Your task to perform on an android device: Go to notification settings Image 0: 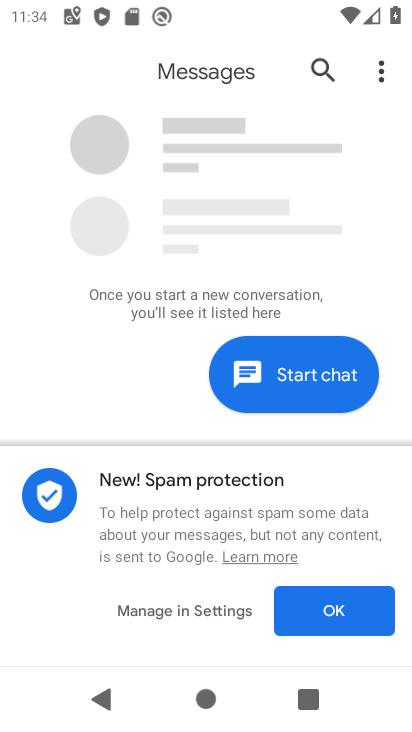
Step 0: click (333, 603)
Your task to perform on an android device: Go to notification settings Image 1: 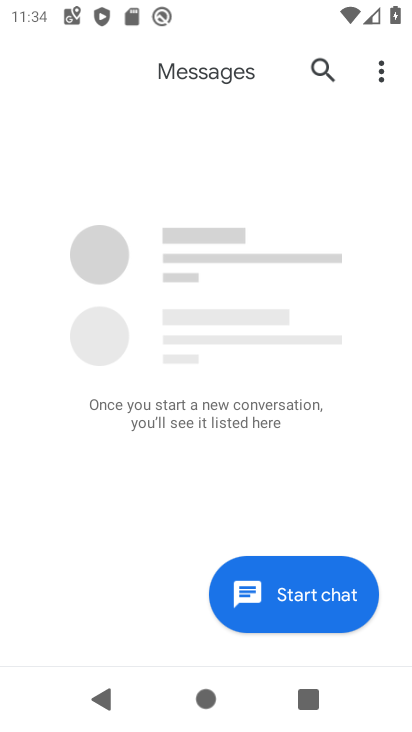
Step 1: press back button
Your task to perform on an android device: Go to notification settings Image 2: 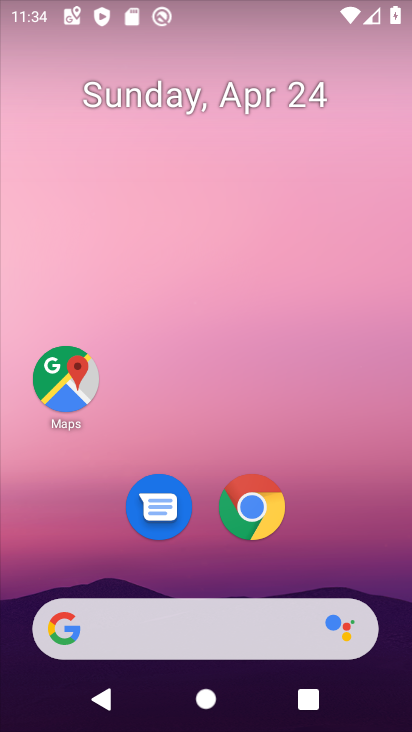
Step 2: drag from (396, 554) to (347, 37)
Your task to perform on an android device: Go to notification settings Image 3: 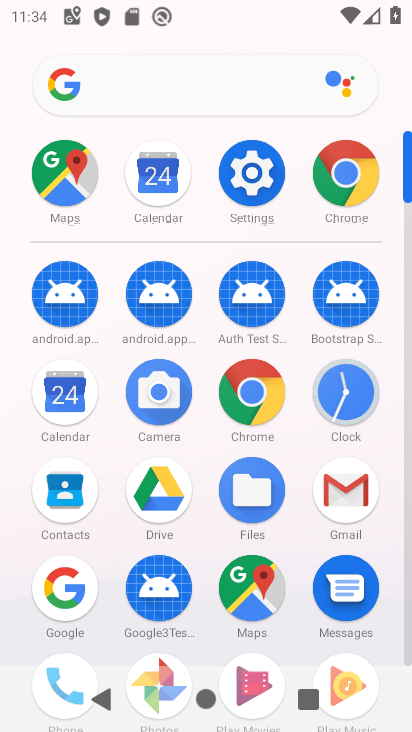
Step 3: drag from (16, 619) to (19, 330)
Your task to perform on an android device: Go to notification settings Image 4: 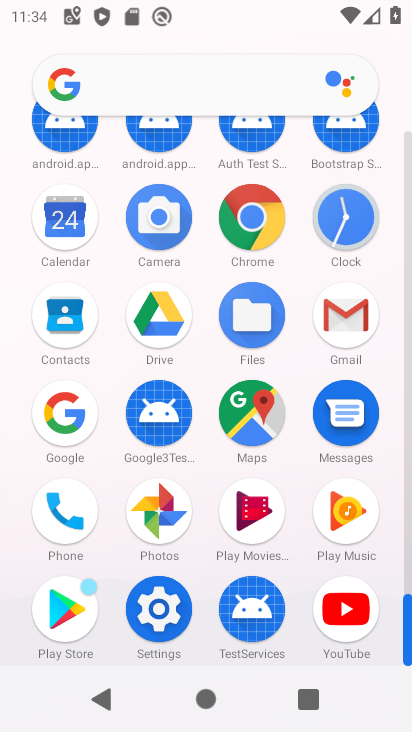
Step 4: drag from (15, 203) to (0, 466)
Your task to perform on an android device: Go to notification settings Image 5: 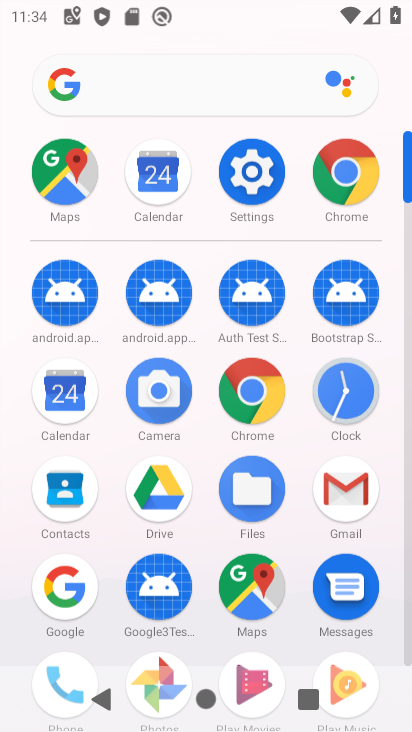
Step 5: drag from (5, 515) to (34, 229)
Your task to perform on an android device: Go to notification settings Image 6: 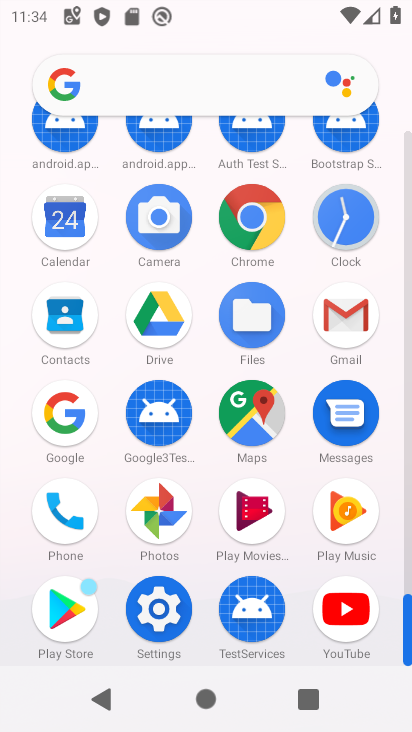
Step 6: click (160, 607)
Your task to perform on an android device: Go to notification settings Image 7: 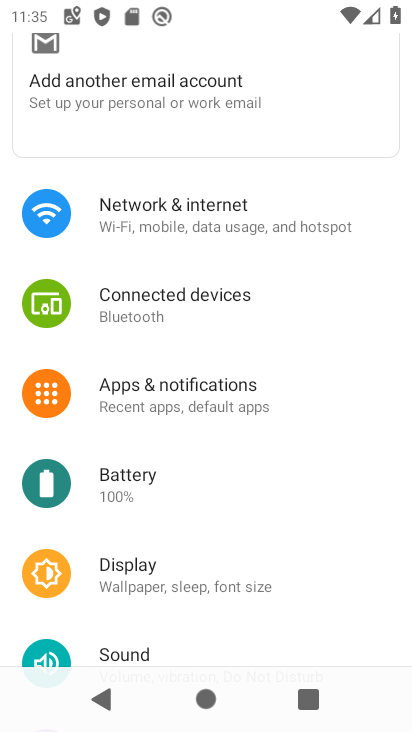
Step 7: click (241, 399)
Your task to perform on an android device: Go to notification settings Image 8: 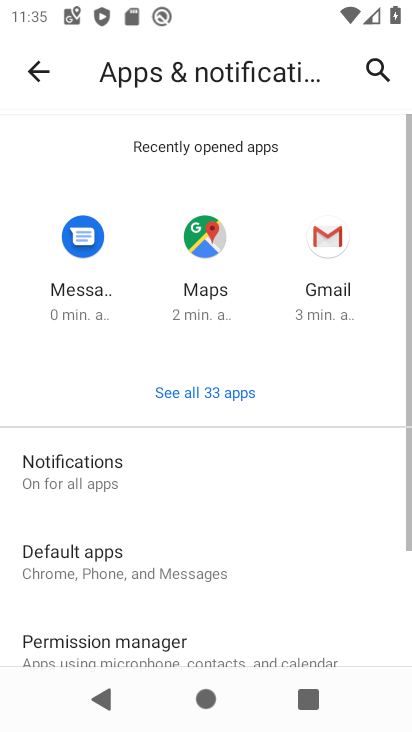
Step 8: drag from (240, 571) to (253, 175)
Your task to perform on an android device: Go to notification settings Image 9: 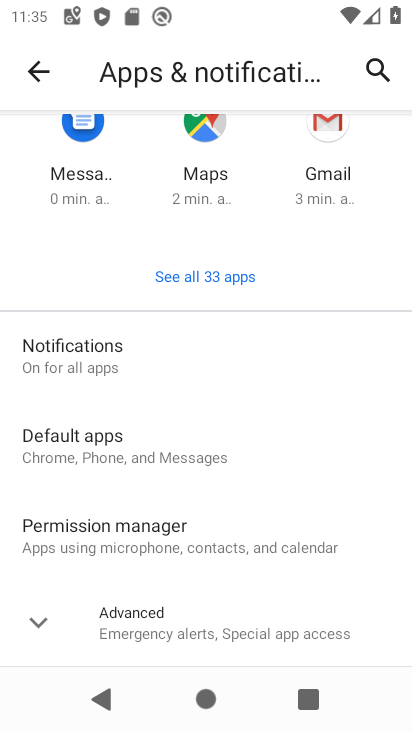
Step 9: click (27, 624)
Your task to perform on an android device: Go to notification settings Image 10: 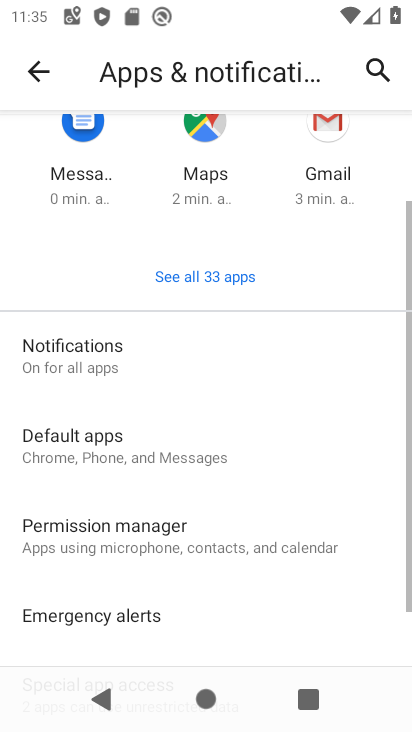
Step 10: drag from (272, 586) to (282, 263)
Your task to perform on an android device: Go to notification settings Image 11: 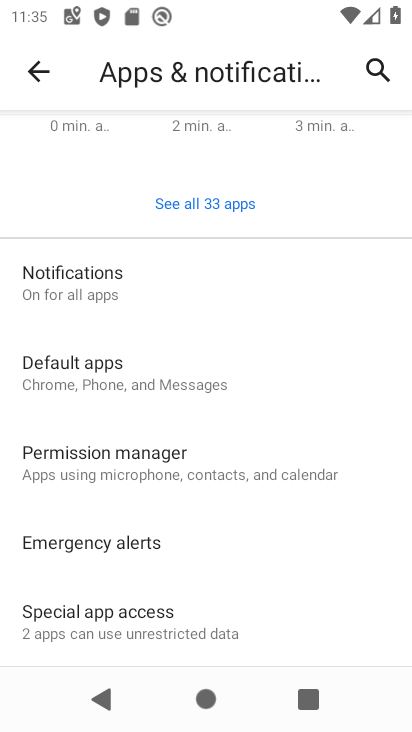
Step 11: click (116, 287)
Your task to perform on an android device: Go to notification settings Image 12: 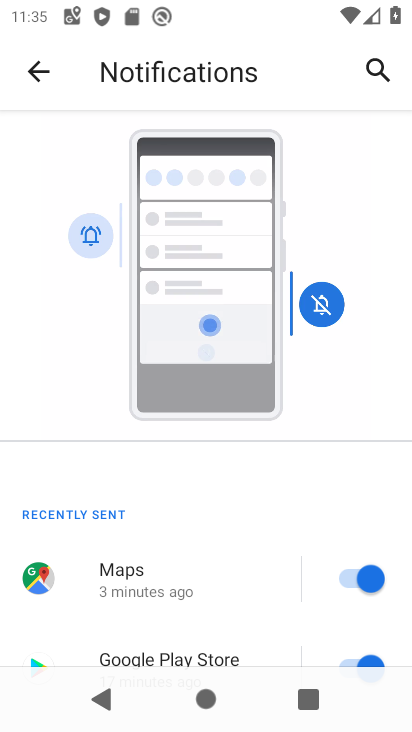
Step 12: drag from (188, 605) to (226, 191)
Your task to perform on an android device: Go to notification settings Image 13: 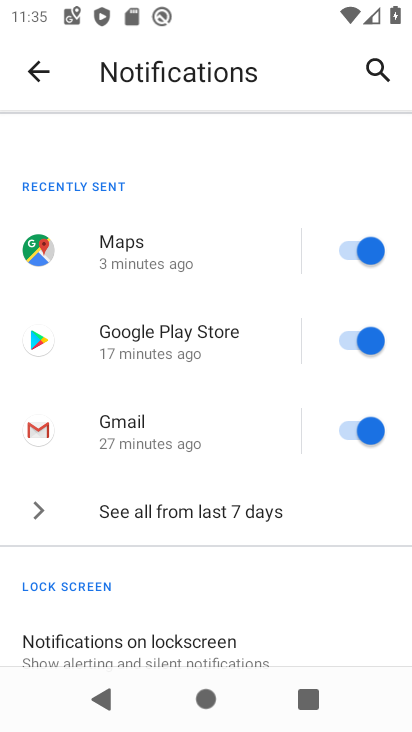
Step 13: drag from (223, 546) to (242, 156)
Your task to perform on an android device: Go to notification settings Image 14: 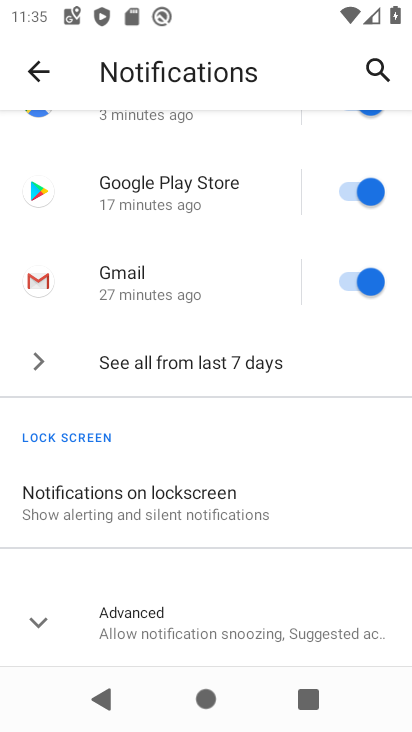
Step 14: click (65, 619)
Your task to perform on an android device: Go to notification settings Image 15: 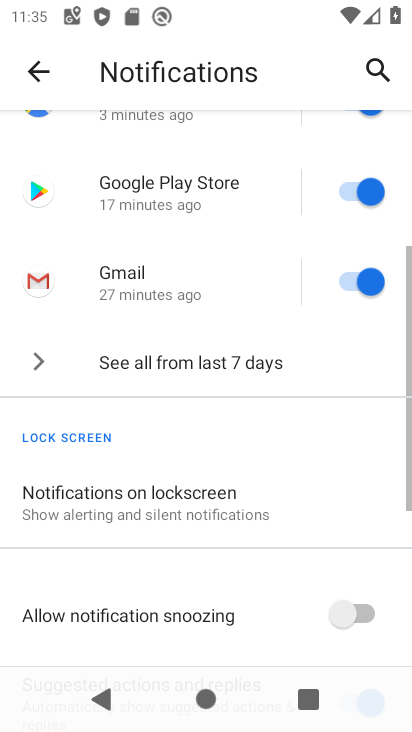
Step 15: task complete